Your task to perform on an android device: What's the weather going to be this weekend? Image 0: 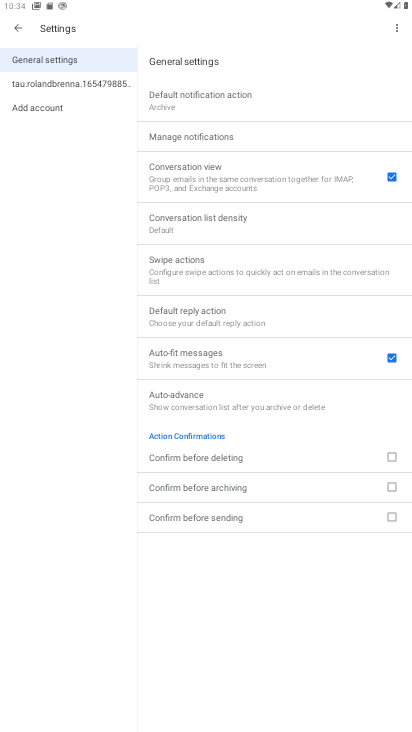
Step 0: press home button
Your task to perform on an android device: What's the weather going to be this weekend? Image 1: 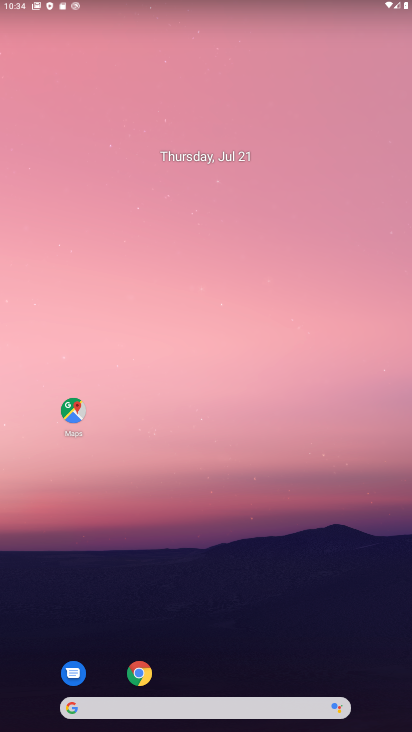
Step 1: drag from (27, 506) to (406, 499)
Your task to perform on an android device: What's the weather going to be this weekend? Image 2: 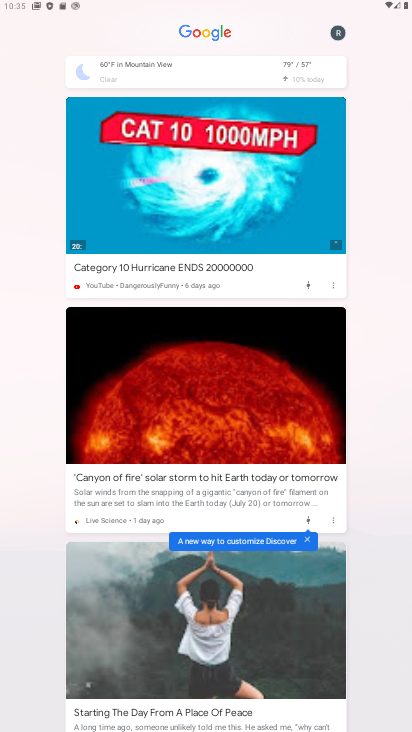
Step 2: click (291, 66)
Your task to perform on an android device: What's the weather going to be this weekend? Image 3: 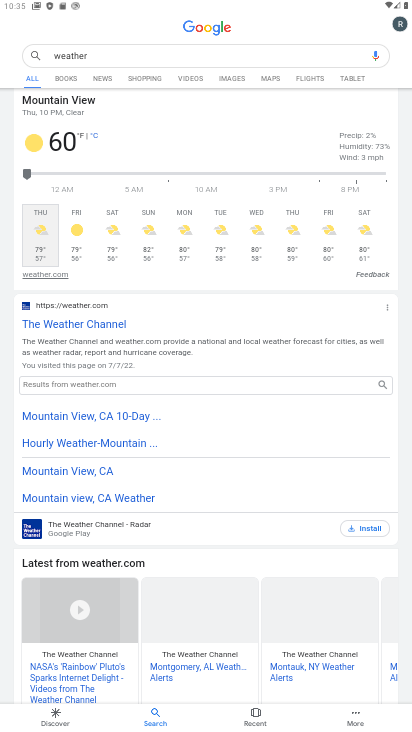
Step 3: click (116, 226)
Your task to perform on an android device: What's the weather going to be this weekend? Image 4: 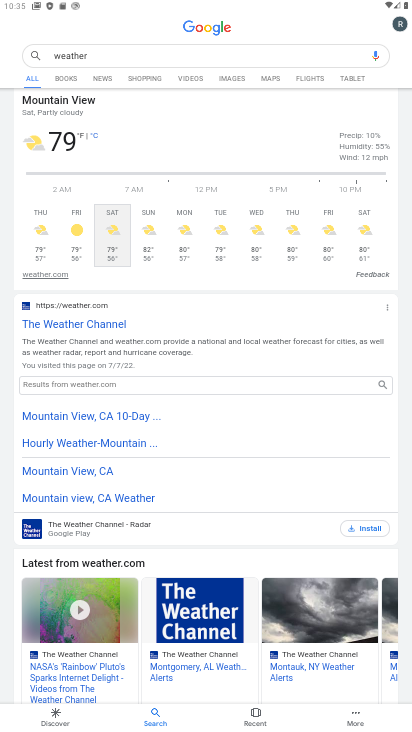
Step 4: task complete